Your task to perform on an android device: toggle translation in the chrome app Image 0: 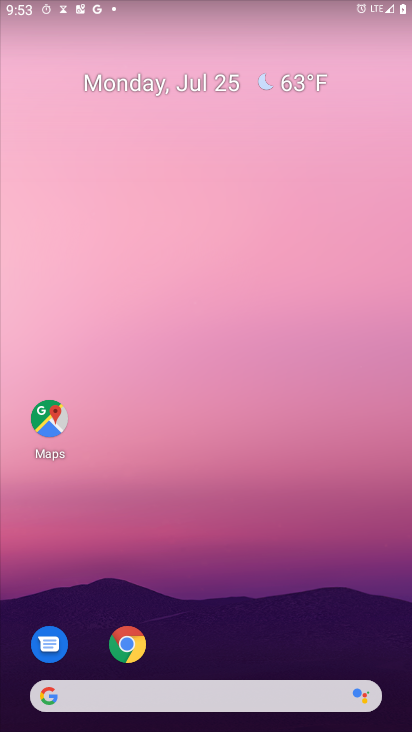
Step 0: drag from (322, 668) to (209, 301)
Your task to perform on an android device: toggle translation in the chrome app Image 1: 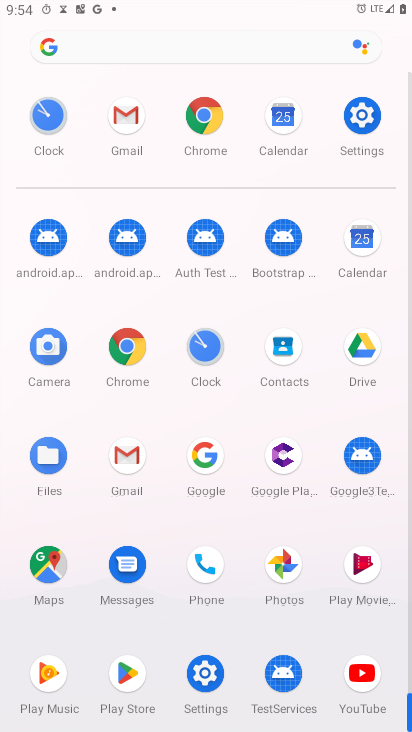
Step 1: click (204, 109)
Your task to perform on an android device: toggle translation in the chrome app Image 2: 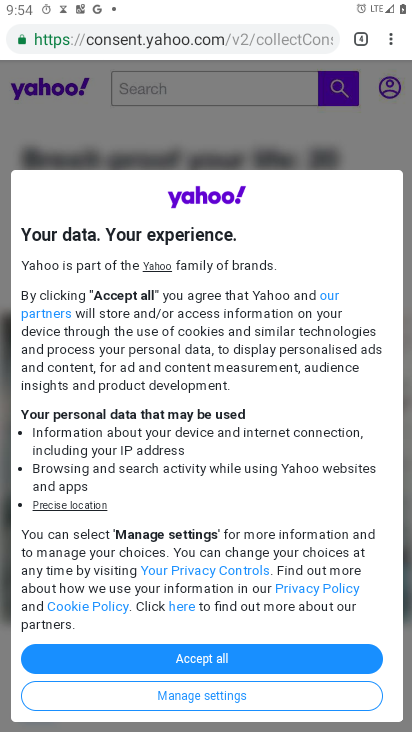
Step 2: click (395, 37)
Your task to perform on an android device: toggle translation in the chrome app Image 3: 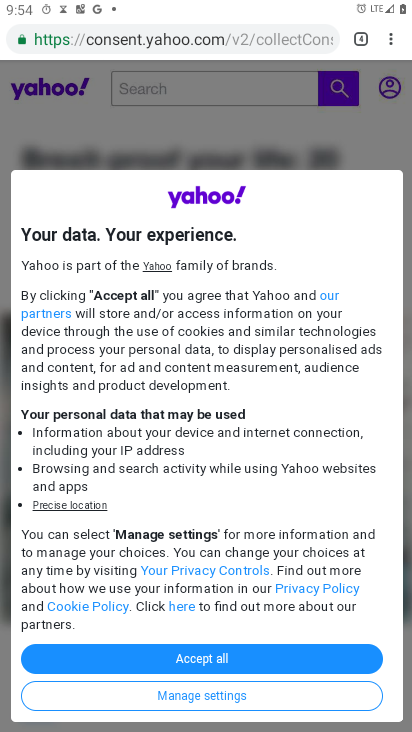
Step 3: drag from (376, 42) to (231, 427)
Your task to perform on an android device: toggle translation in the chrome app Image 4: 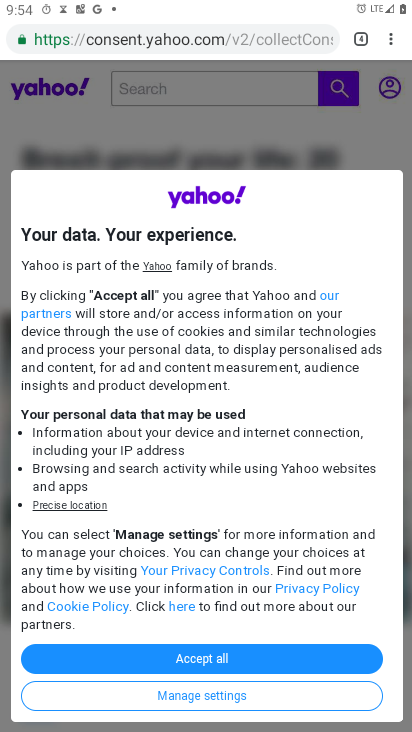
Step 4: drag from (386, 52) to (255, 481)
Your task to perform on an android device: toggle translation in the chrome app Image 5: 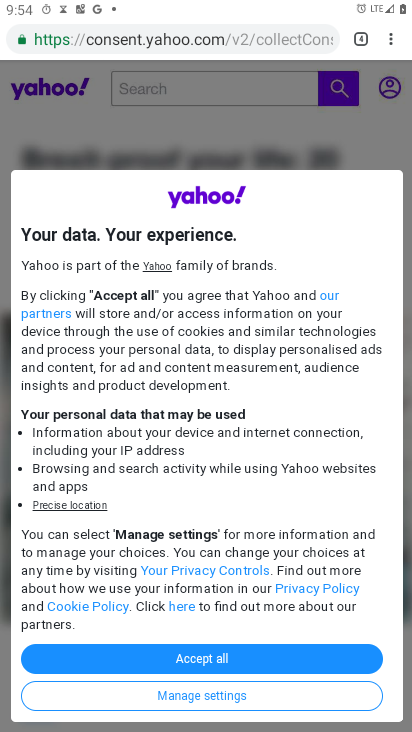
Step 5: click (259, 499)
Your task to perform on an android device: toggle translation in the chrome app Image 6: 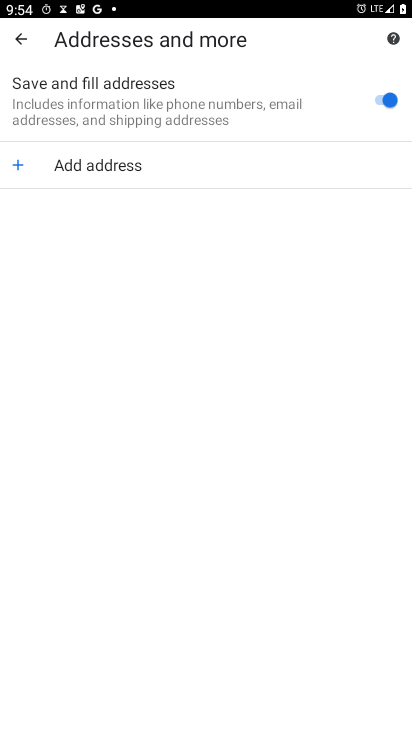
Step 6: click (16, 34)
Your task to perform on an android device: toggle translation in the chrome app Image 7: 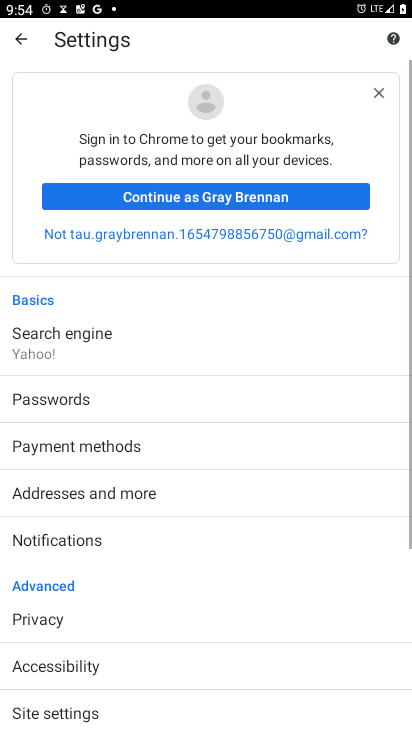
Step 7: drag from (171, 580) to (148, 305)
Your task to perform on an android device: toggle translation in the chrome app Image 8: 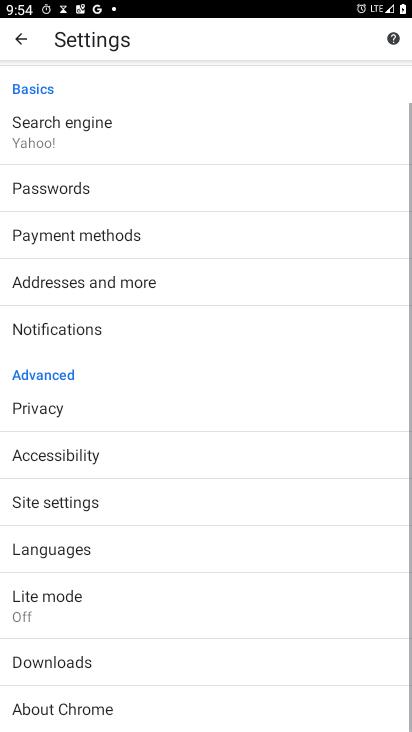
Step 8: drag from (178, 585) to (163, 403)
Your task to perform on an android device: toggle translation in the chrome app Image 9: 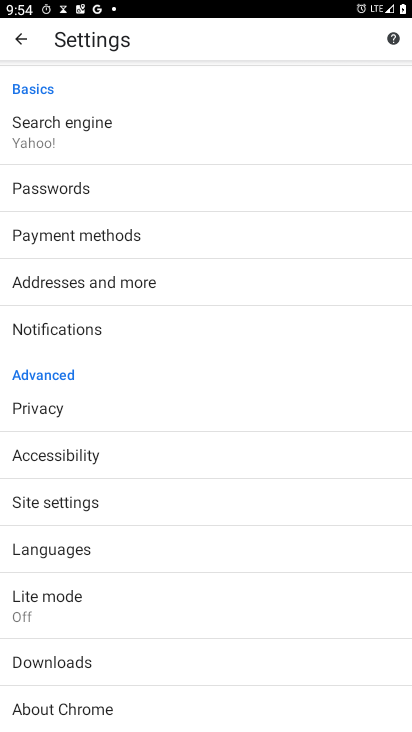
Step 9: click (104, 535)
Your task to perform on an android device: toggle translation in the chrome app Image 10: 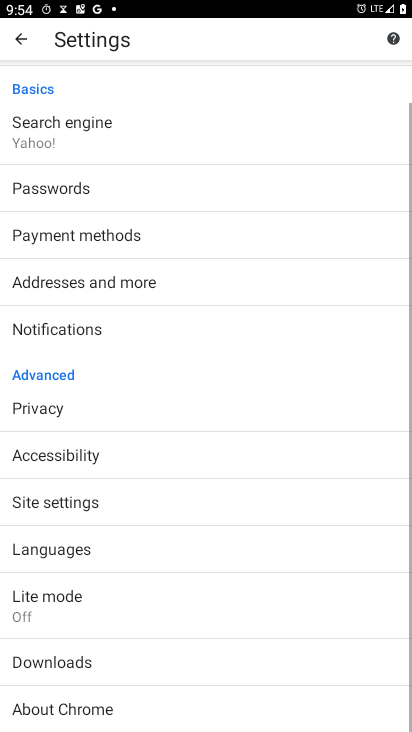
Step 10: click (114, 540)
Your task to perform on an android device: toggle translation in the chrome app Image 11: 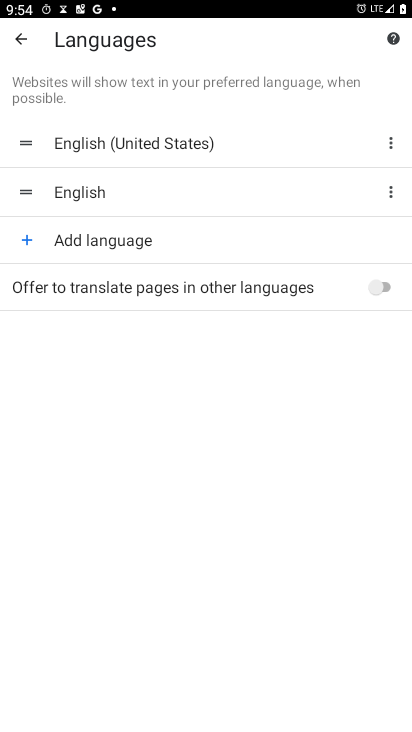
Step 11: click (362, 281)
Your task to perform on an android device: toggle translation in the chrome app Image 12: 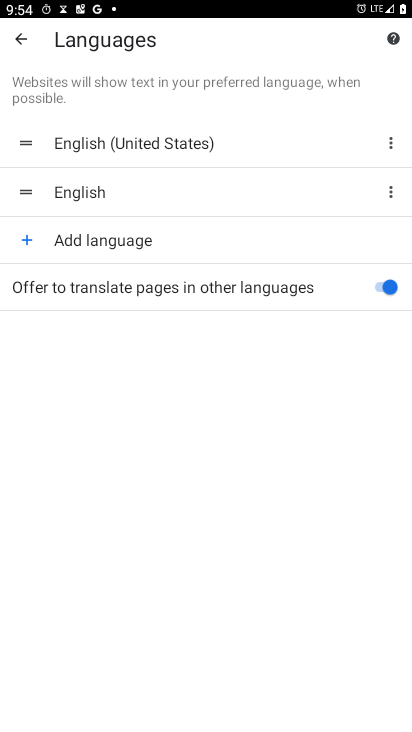
Step 12: task complete